Your task to perform on an android device: check google app version Image 0: 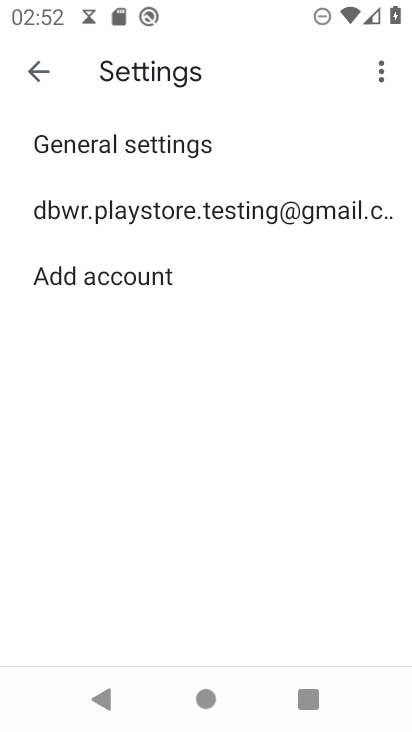
Step 0: press home button
Your task to perform on an android device: check google app version Image 1: 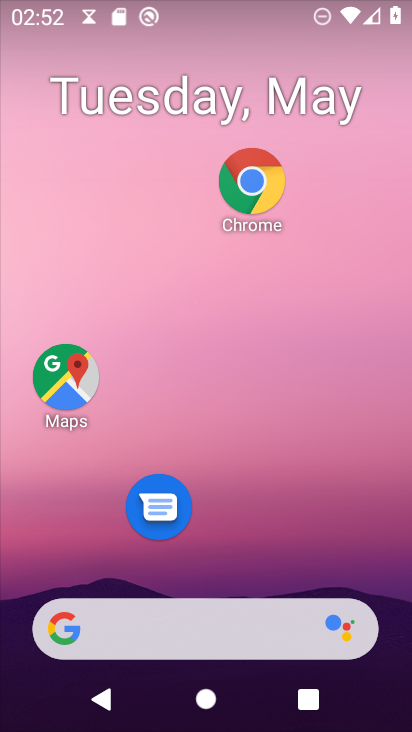
Step 1: click (269, 516)
Your task to perform on an android device: check google app version Image 2: 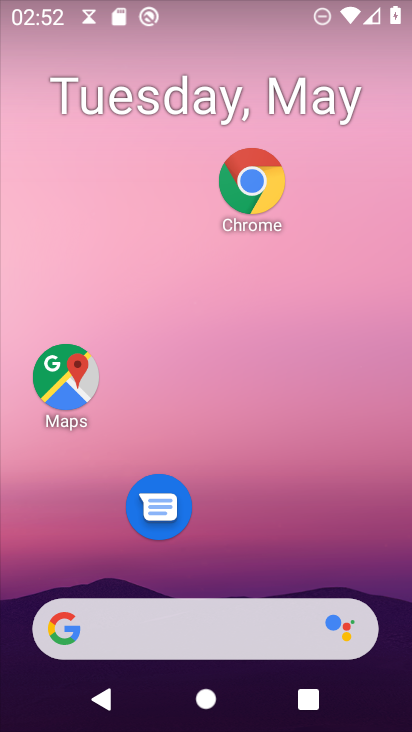
Step 2: drag from (273, 480) to (325, 50)
Your task to perform on an android device: check google app version Image 3: 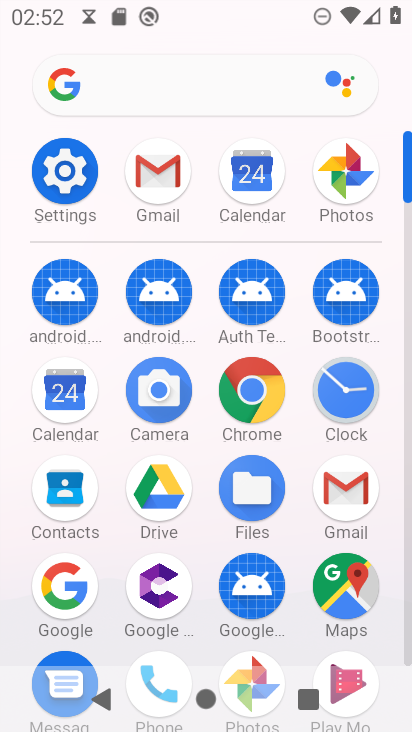
Step 3: click (31, 577)
Your task to perform on an android device: check google app version Image 4: 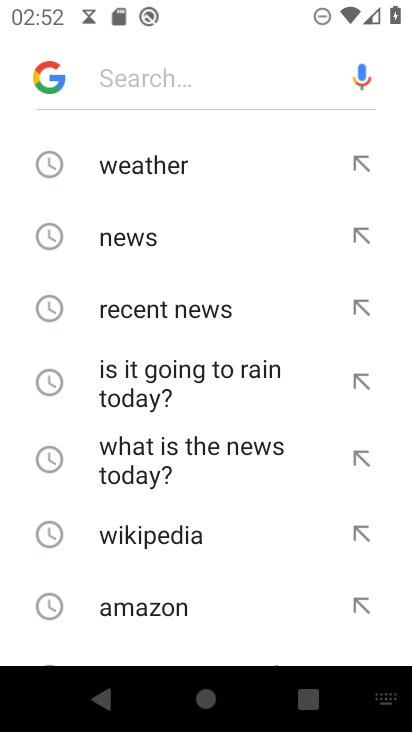
Step 4: click (47, 86)
Your task to perform on an android device: check google app version Image 5: 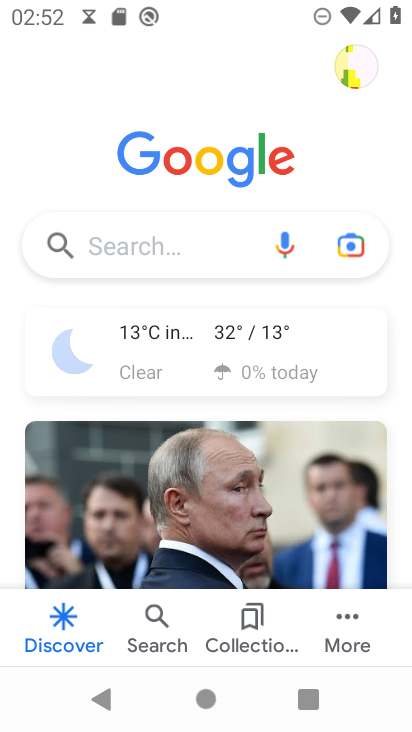
Step 5: click (328, 622)
Your task to perform on an android device: check google app version Image 6: 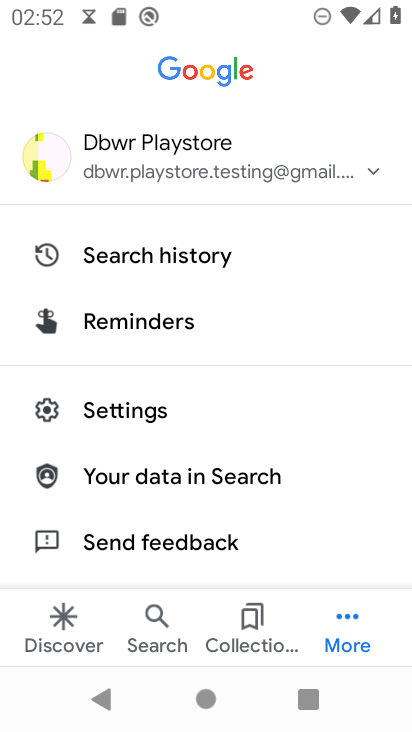
Step 6: click (177, 395)
Your task to perform on an android device: check google app version Image 7: 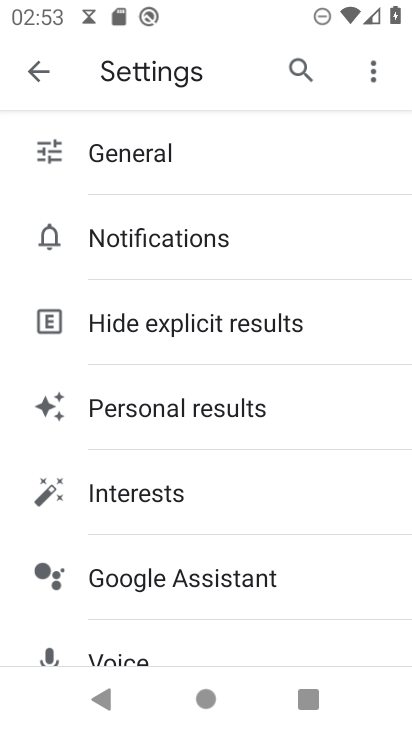
Step 7: drag from (264, 538) to (285, 203)
Your task to perform on an android device: check google app version Image 8: 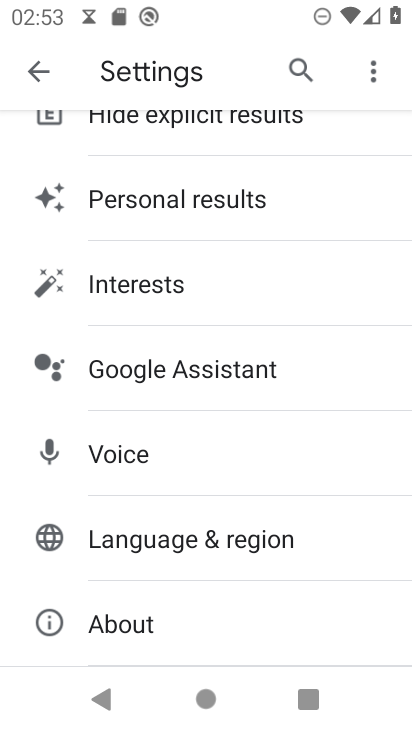
Step 8: click (133, 615)
Your task to perform on an android device: check google app version Image 9: 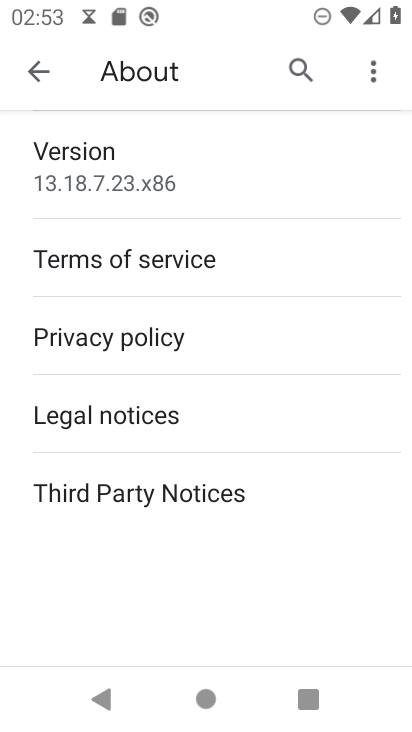
Step 9: task complete